Your task to perform on an android device: see sites visited before in the chrome app Image 0: 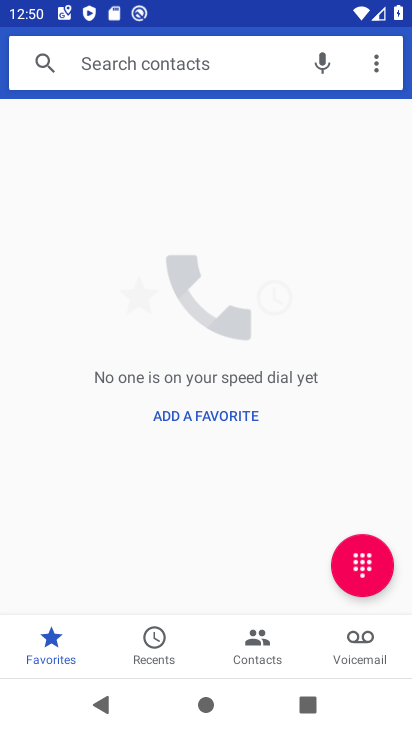
Step 0: press home button
Your task to perform on an android device: see sites visited before in the chrome app Image 1: 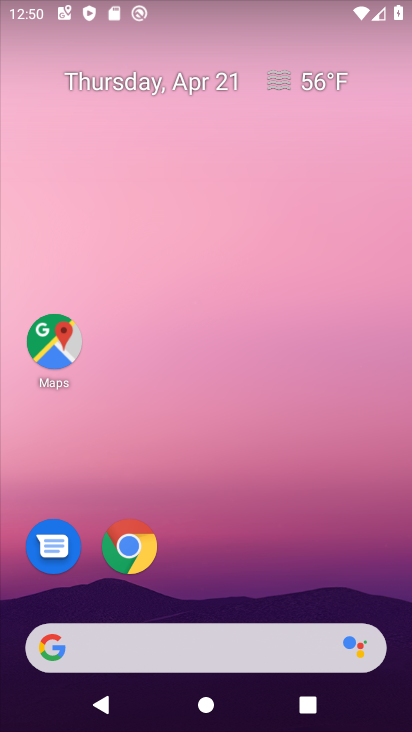
Step 1: drag from (174, 628) to (283, 137)
Your task to perform on an android device: see sites visited before in the chrome app Image 2: 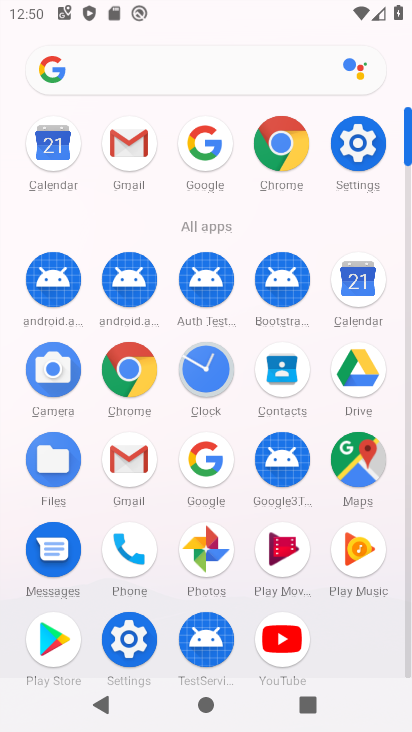
Step 2: click (287, 160)
Your task to perform on an android device: see sites visited before in the chrome app Image 3: 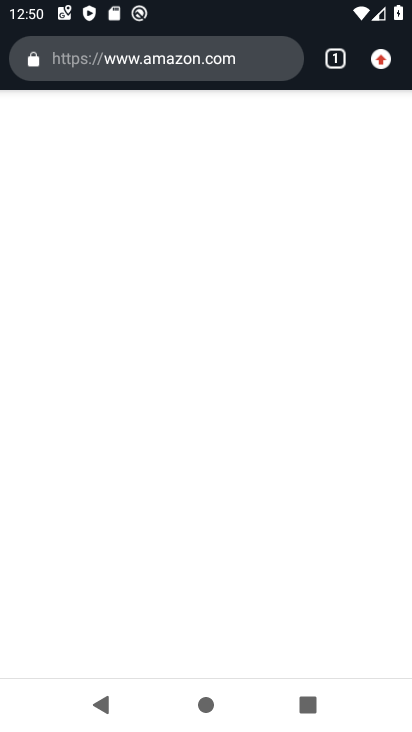
Step 3: click (382, 72)
Your task to perform on an android device: see sites visited before in the chrome app Image 4: 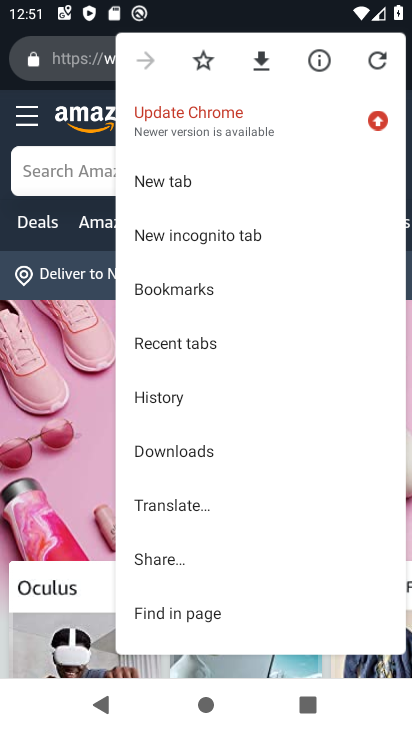
Step 4: click (197, 347)
Your task to perform on an android device: see sites visited before in the chrome app Image 5: 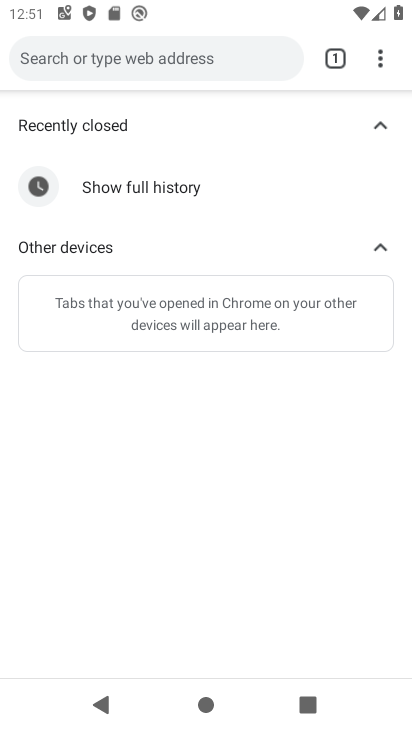
Step 5: task complete